Your task to perform on an android device: turn vacation reply on in the gmail app Image 0: 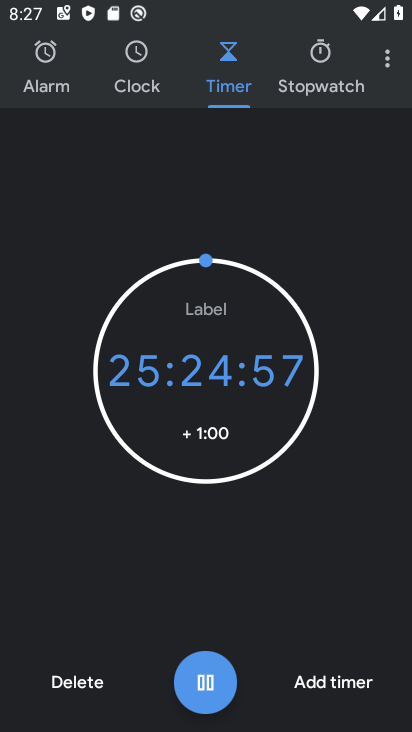
Step 0: press home button
Your task to perform on an android device: turn vacation reply on in the gmail app Image 1: 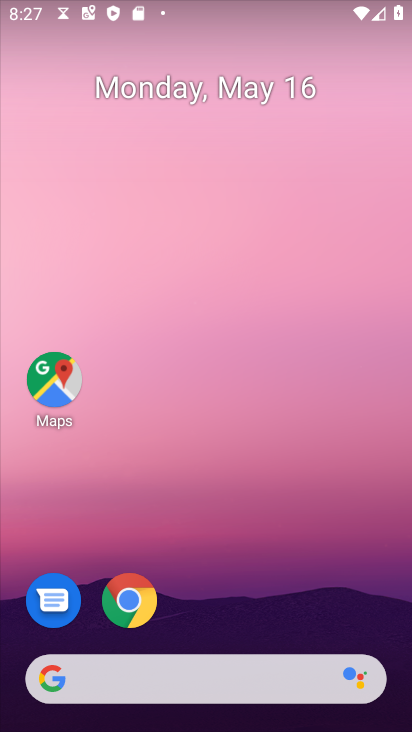
Step 1: drag from (248, 571) to (324, 99)
Your task to perform on an android device: turn vacation reply on in the gmail app Image 2: 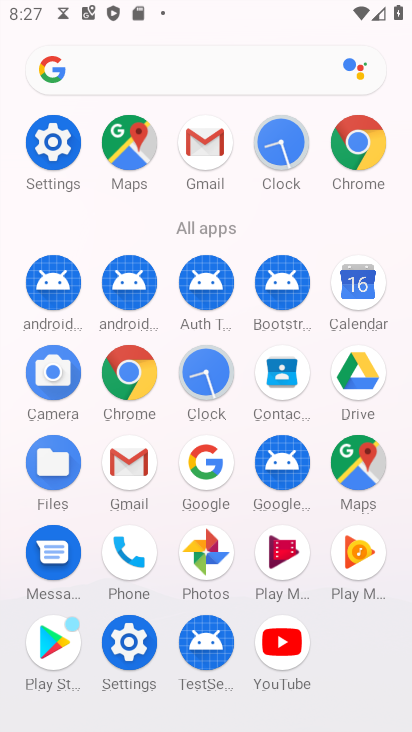
Step 2: click (214, 171)
Your task to perform on an android device: turn vacation reply on in the gmail app Image 3: 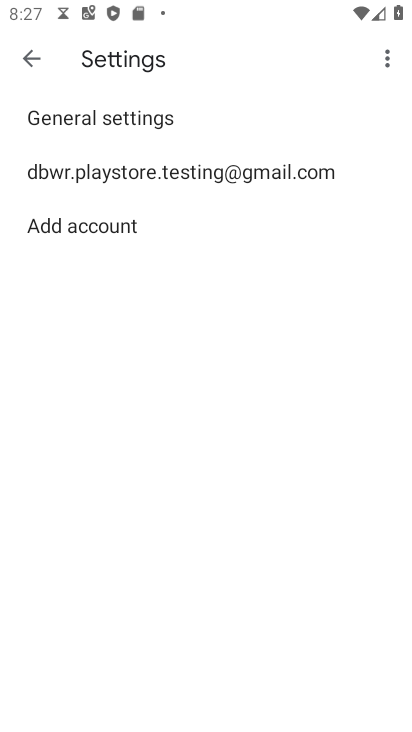
Step 3: click (168, 164)
Your task to perform on an android device: turn vacation reply on in the gmail app Image 4: 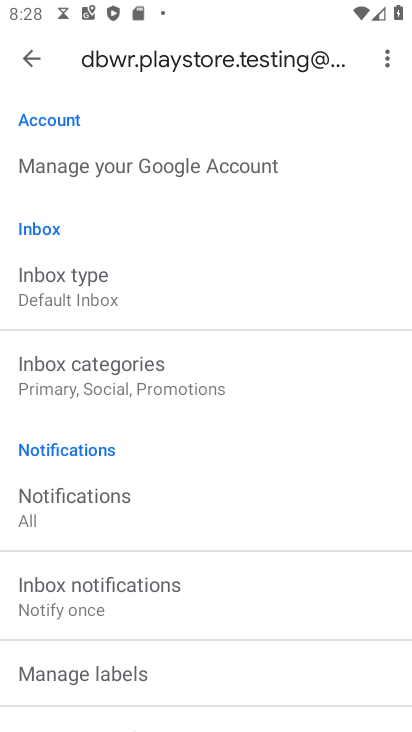
Step 4: drag from (155, 612) to (184, 279)
Your task to perform on an android device: turn vacation reply on in the gmail app Image 5: 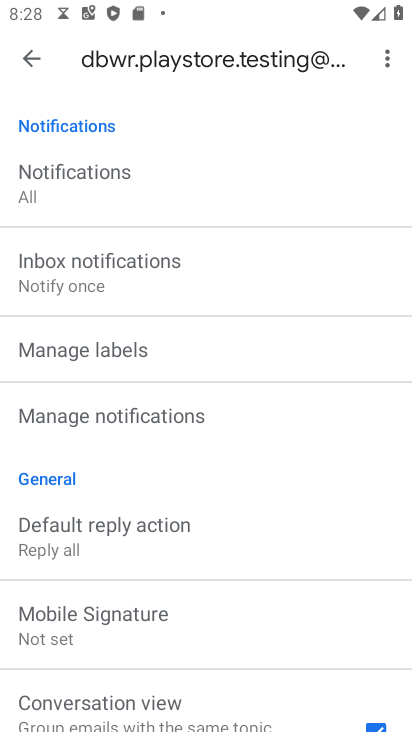
Step 5: drag from (196, 600) to (226, 295)
Your task to perform on an android device: turn vacation reply on in the gmail app Image 6: 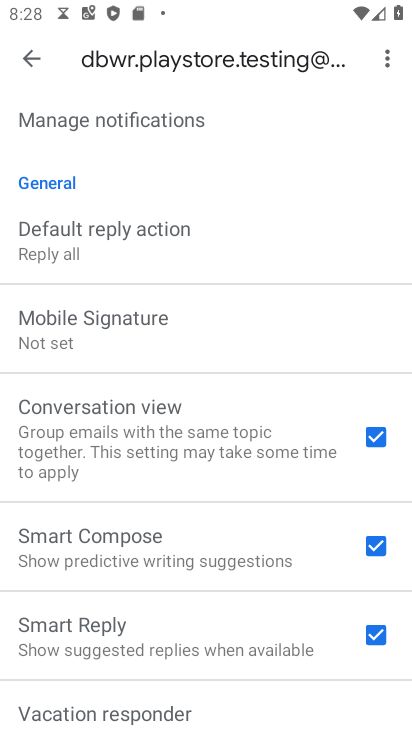
Step 6: drag from (163, 631) to (192, 304)
Your task to perform on an android device: turn vacation reply on in the gmail app Image 7: 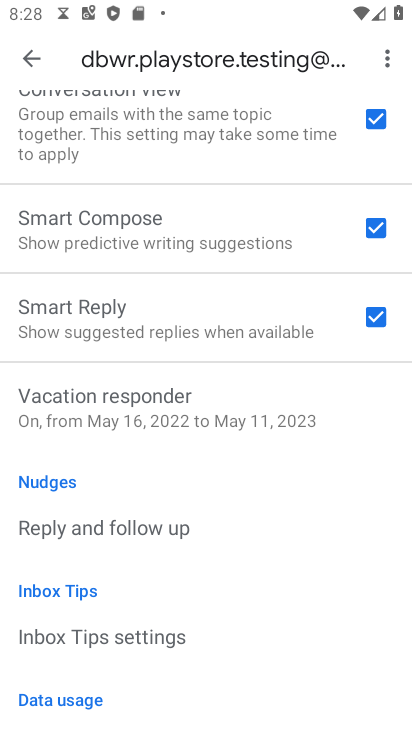
Step 7: click (167, 402)
Your task to perform on an android device: turn vacation reply on in the gmail app Image 8: 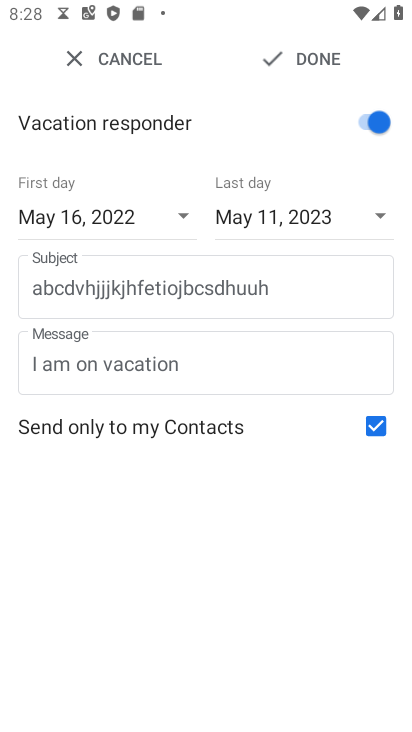
Step 8: task complete